Your task to perform on an android device: Open the web browser Image 0: 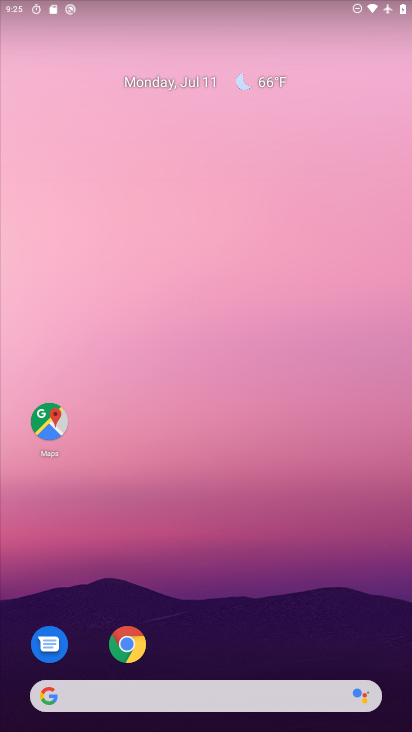
Step 0: drag from (317, 616) to (338, 116)
Your task to perform on an android device: Open the web browser Image 1: 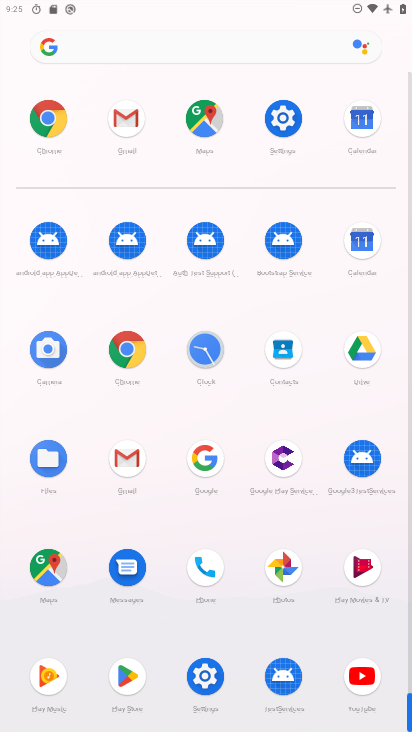
Step 1: click (55, 114)
Your task to perform on an android device: Open the web browser Image 2: 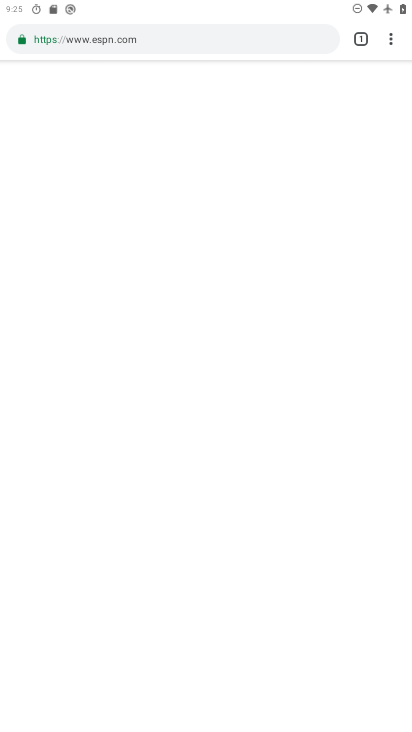
Step 2: task complete